Your task to perform on an android device: set the stopwatch Image 0: 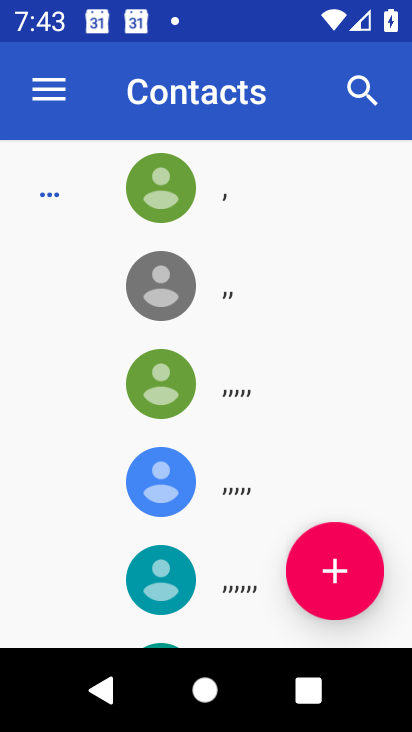
Step 0: press back button
Your task to perform on an android device: set the stopwatch Image 1: 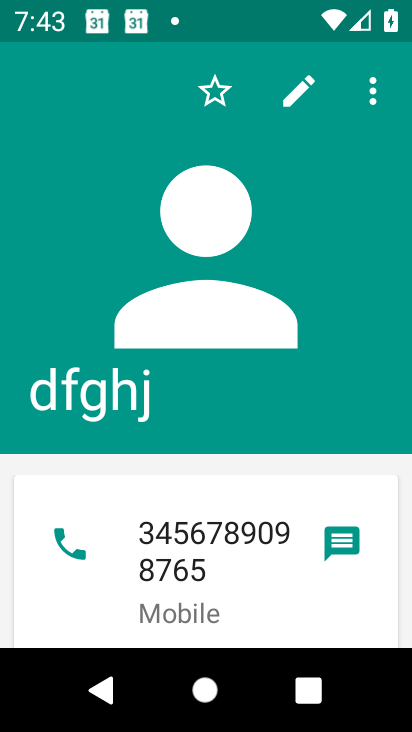
Step 1: press back button
Your task to perform on an android device: set the stopwatch Image 2: 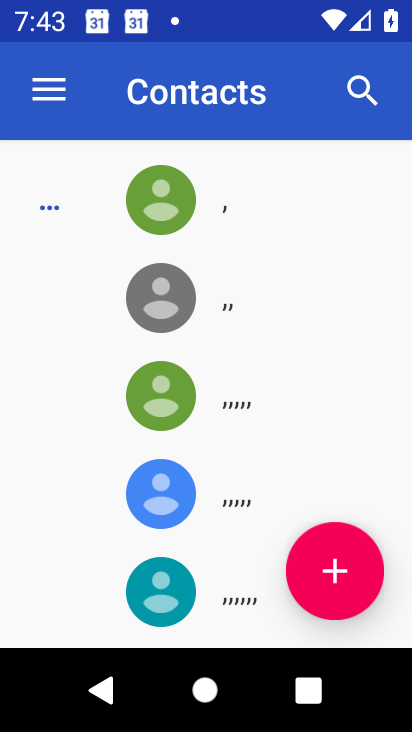
Step 2: press home button
Your task to perform on an android device: set the stopwatch Image 3: 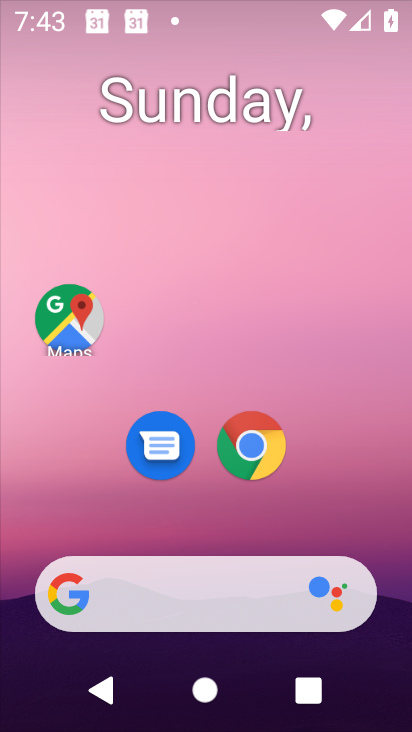
Step 3: drag from (380, 522) to (255, 12)
Your task to perform on an android device: set the stopwatch Image 4: 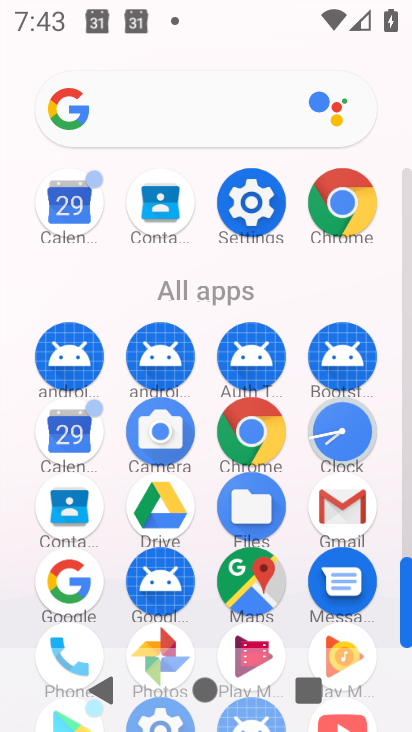
Step 4: drag from (0, 571) to (0, 286)
Your task to perform on an android device: set the stopwatch Image 5: 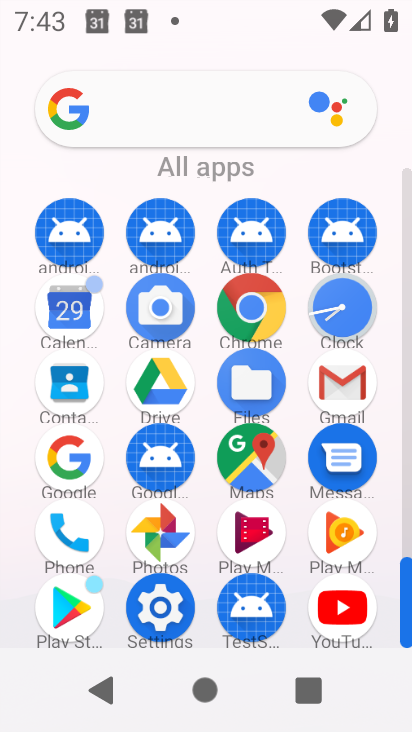
Step 5: click (338, 303)
Your task to perform on an android device: set the stopwatch Image 6: 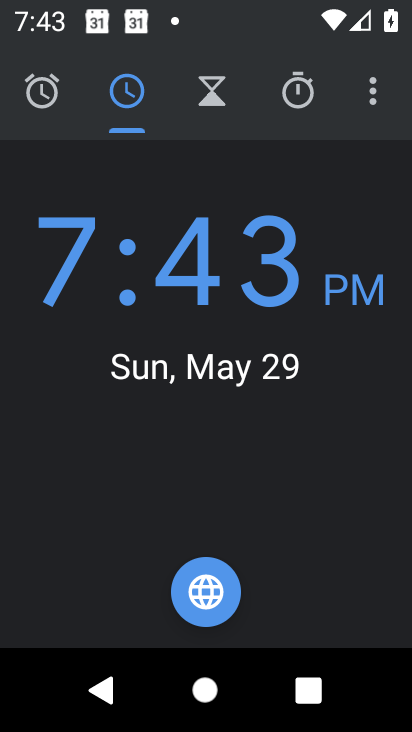
Step 6: click (306, 92)
Your task to perform on an android device: set the stopwatch Image 7: 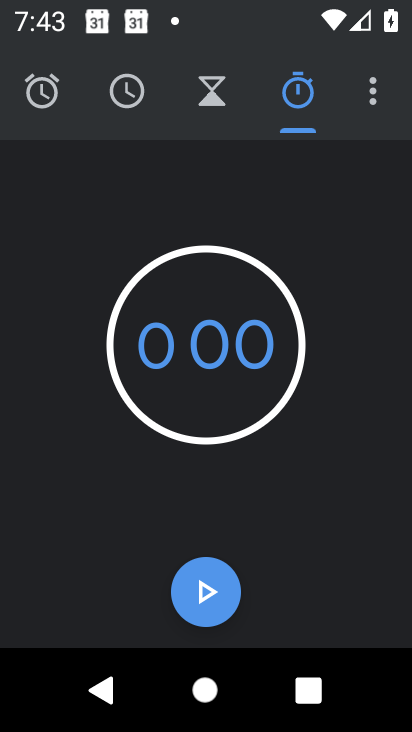
Step 7: click (206, 577)
Your task to perform on an android device: set the stopwatch Image 8: 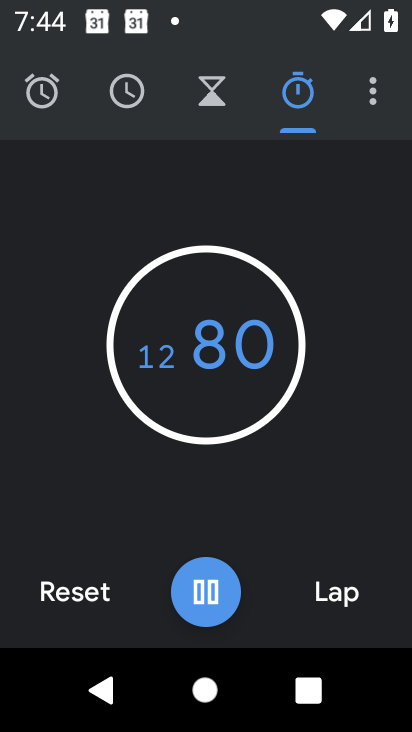
Step 8: task complete